Your task to perform on an android device: open app "Roku - Official Remote Control" (install if not already installed) and enter user name: "autumnal@gmail.com" and password: "stuffing" Image 0: 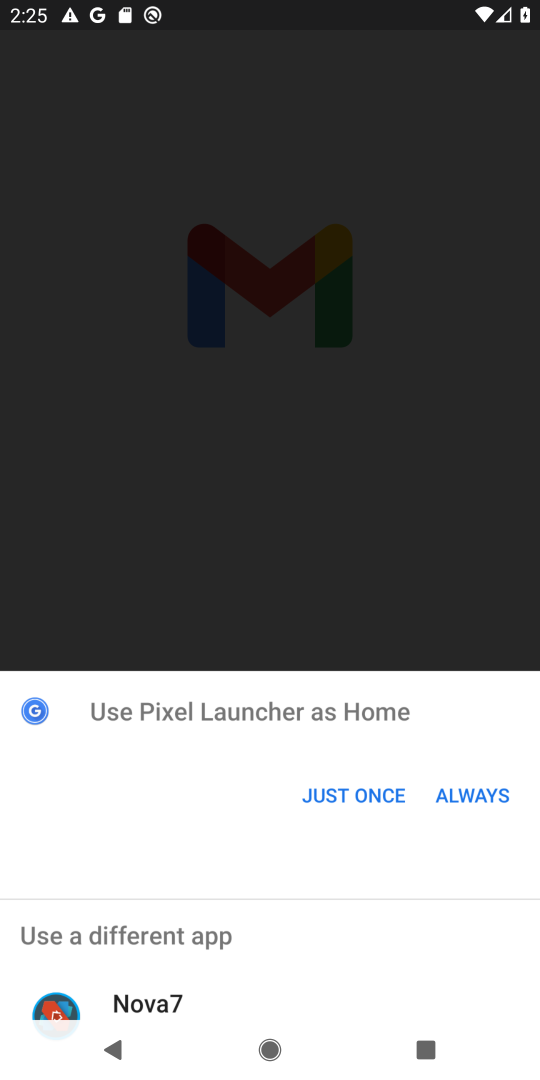
Step 0: press home button
Your task to perform on an android device: open app "Roku - Official Remote Control" (install if not already installed) and enter user name: "autumnal@gmail.com" and password: "stuffing" Image 1: 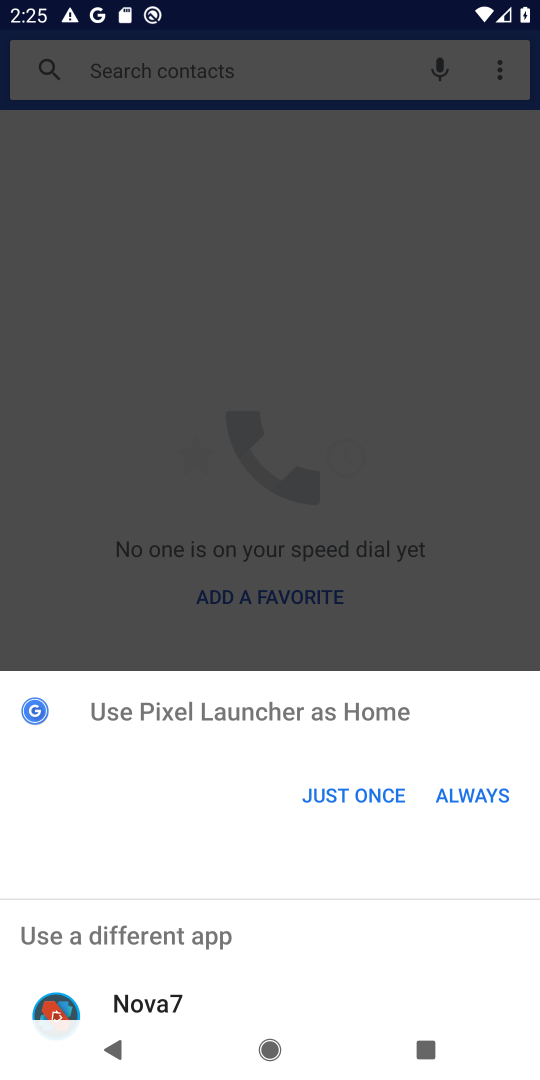
Step 1: click (360, 801)
Your task to perform on an android device: open app "Roku - Official Remote Control" (install if not already installed) and enter user name: "autumnal@gmail.com" and password: "stuffing" Image 2: 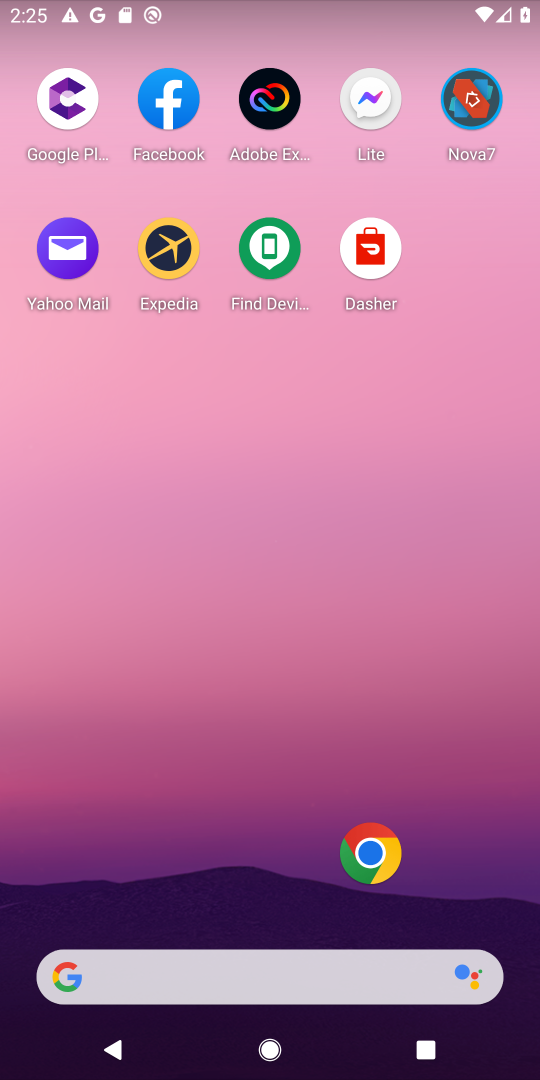
Step 2: drag from (519, 939) to (480, 186)
Your task to perform on an android device: open app "Roku - Official Remote Control" (install if not already installed) and enter user name: "autumnal@gmail.com" and password: "stuffing" Image 3: 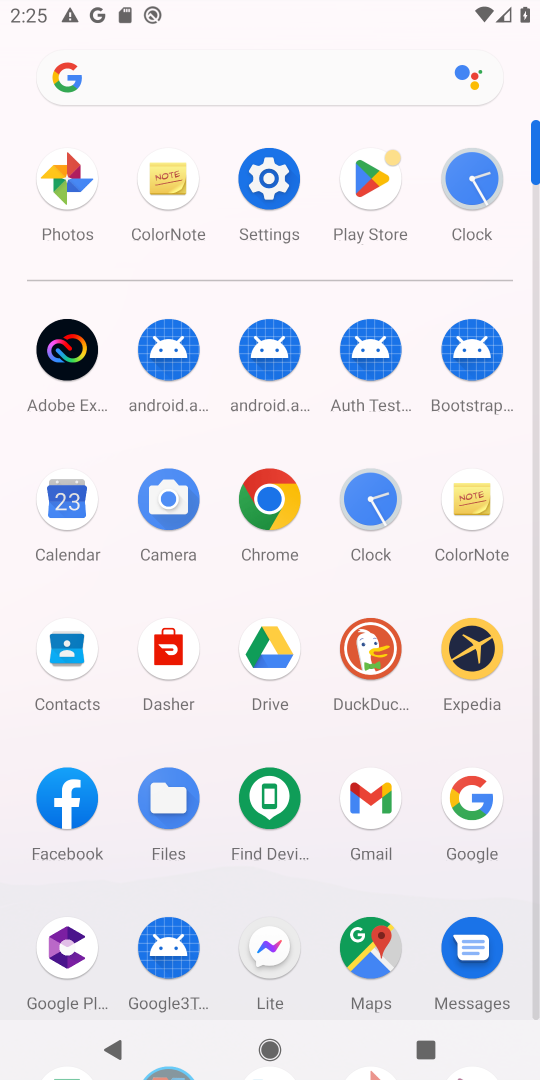
Step 3: click (538, 983)
Your task to perform on an android device: open app "Roku - Official Remote Control" (install if not already installed) and enter user name: "autumnal@gmail.com" and password: "stuffing" Image 4: 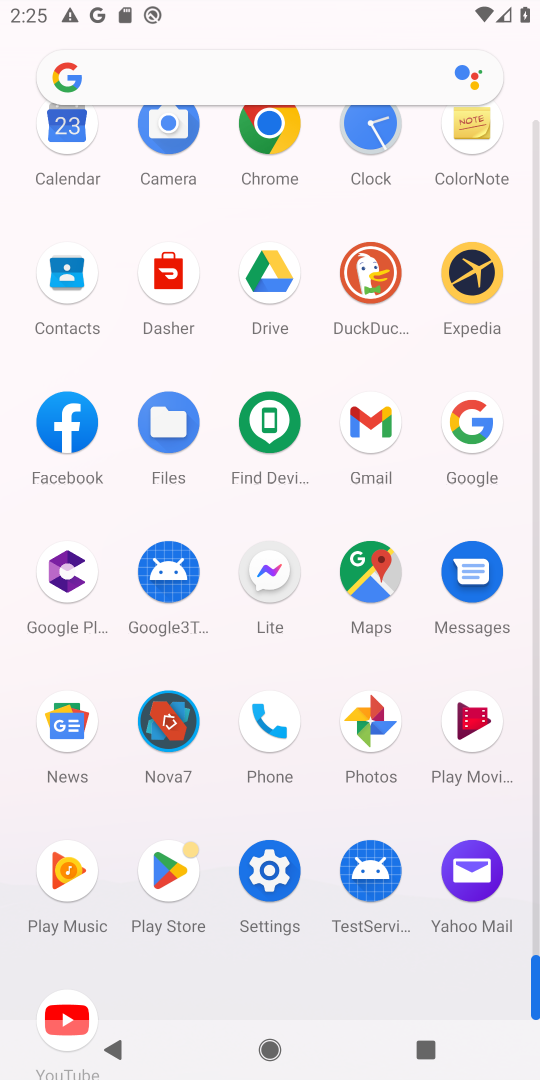
Step 4: click (170, 872)
Your task to perform on an android device: open app "Roku - Official Remote Control" (install if not already installed) and enter user name: "autumnal@gmail.com" and password: "stuffing" Image 5: 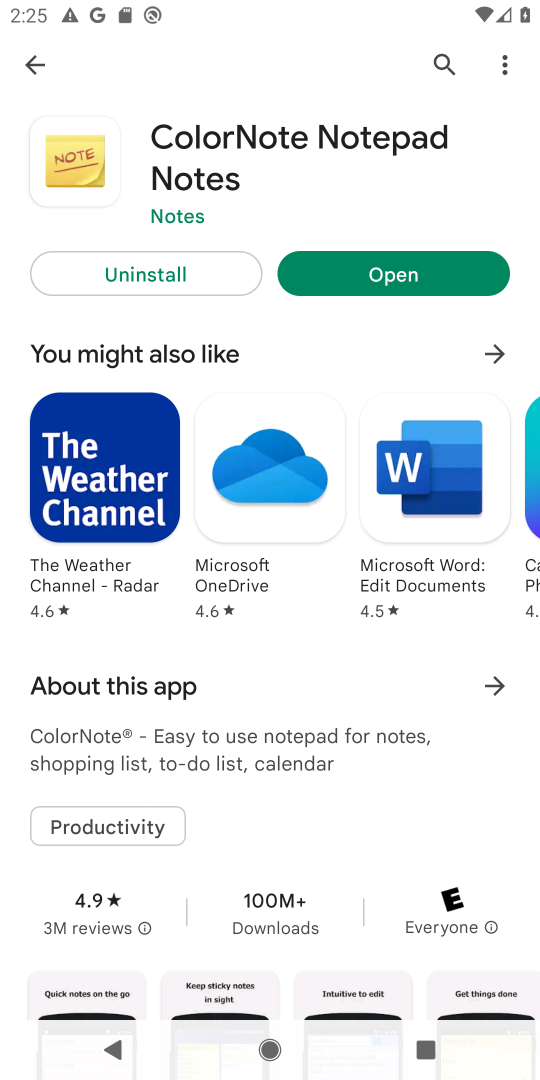
Step 5: click (442, 61)
Your task to perform on an android device: open app "Roku - Official Remote Control" (install if not already installed) and enter user name: "autumnal@gmail.com" and password: "stuffing" Image 6: 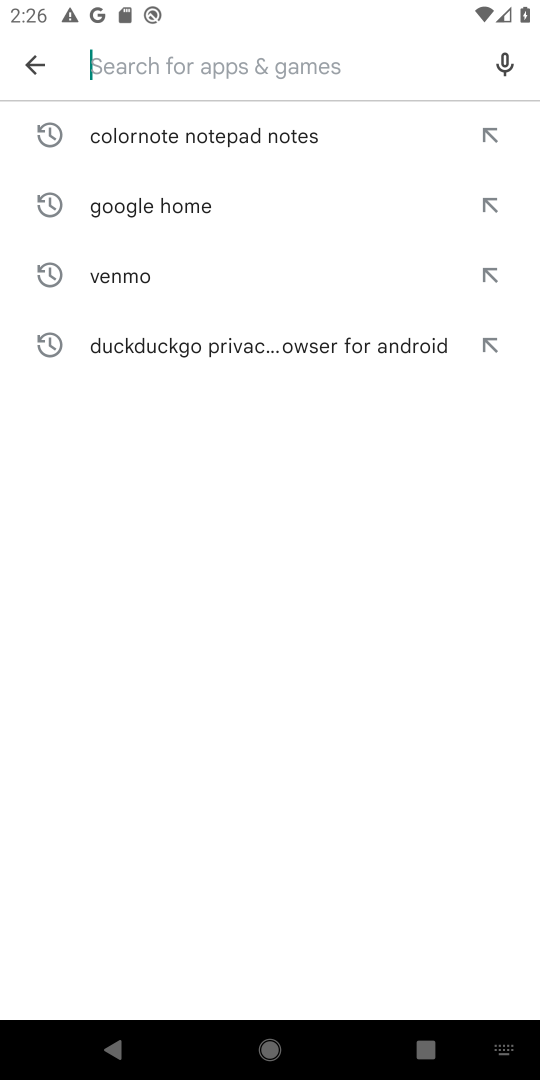
Step 6: type "Roku - Official Remote Control"
Your task to perform on an android device: open app "Roku - Official Remote Control" (install if not already installed) and enter user name: "autumnal@gmail.com" and password: "stuffing" Image 7: 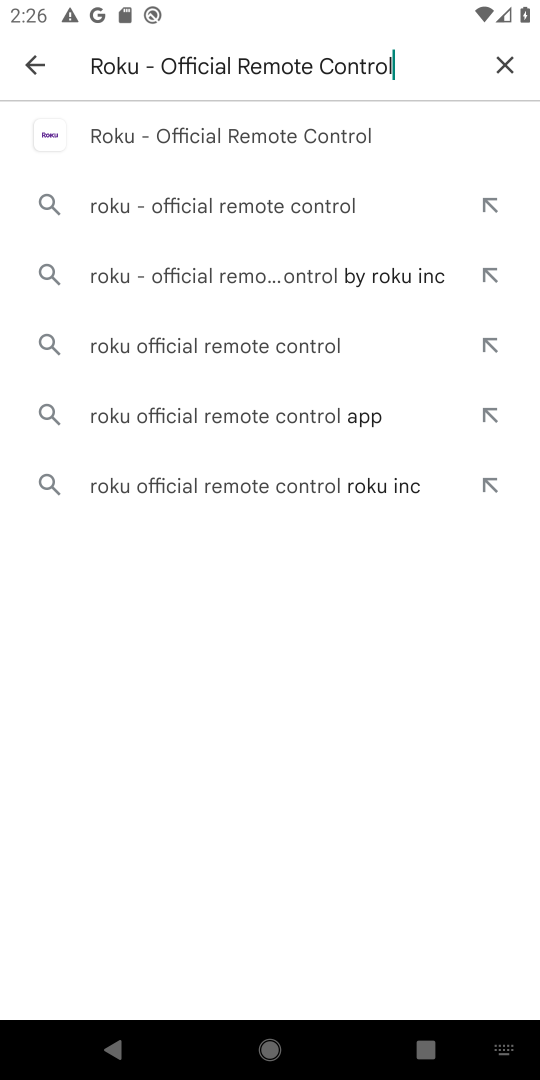
Step 7: click (186, 127)
Your task to perform on an android device: open app "Roku - Official Remote Control" (install if not already installed) and enter user name: "autumnal@gmail.com" and password: "stuffing" Image 8: 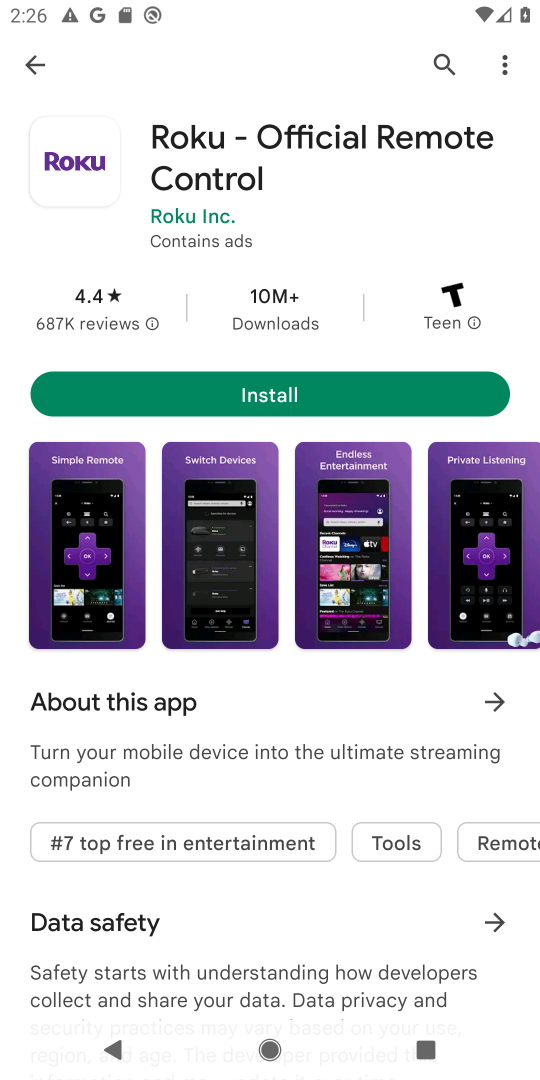
Step 8: click (276, 400)
Your task to perform on an android device: open app "Roku - Official Remote Control" (install if not already installed) and enter user name: "autumnal@gmail.com" and password: "stuffing" Image 9: 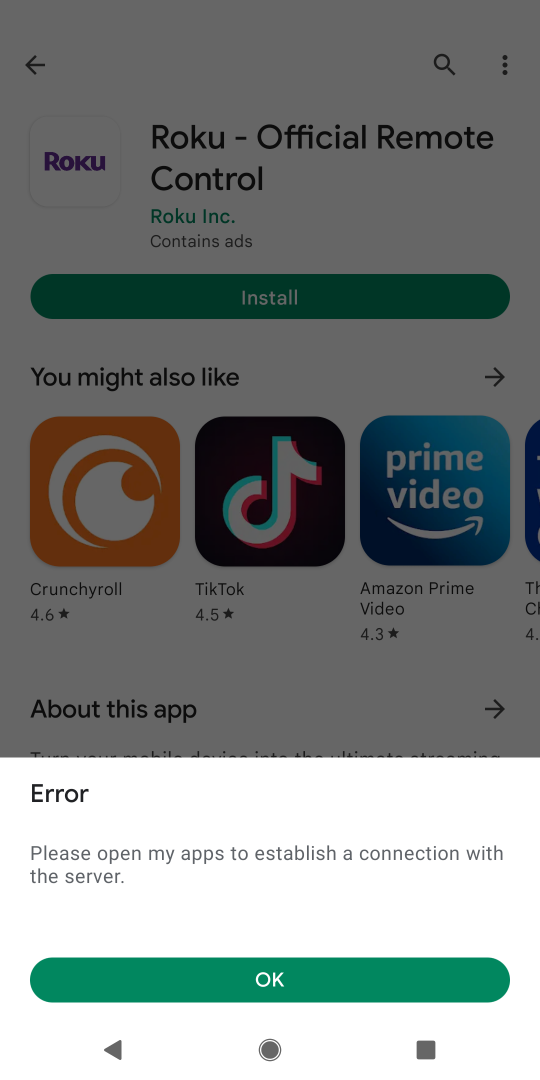
Step 9: click (277, 976)
Your task to perform on an android device: open app "Roku - Official Remote Control" (install if not already installed) and enter user name: "autumnal@gmail.com" and password: "stuffing" Image 10: 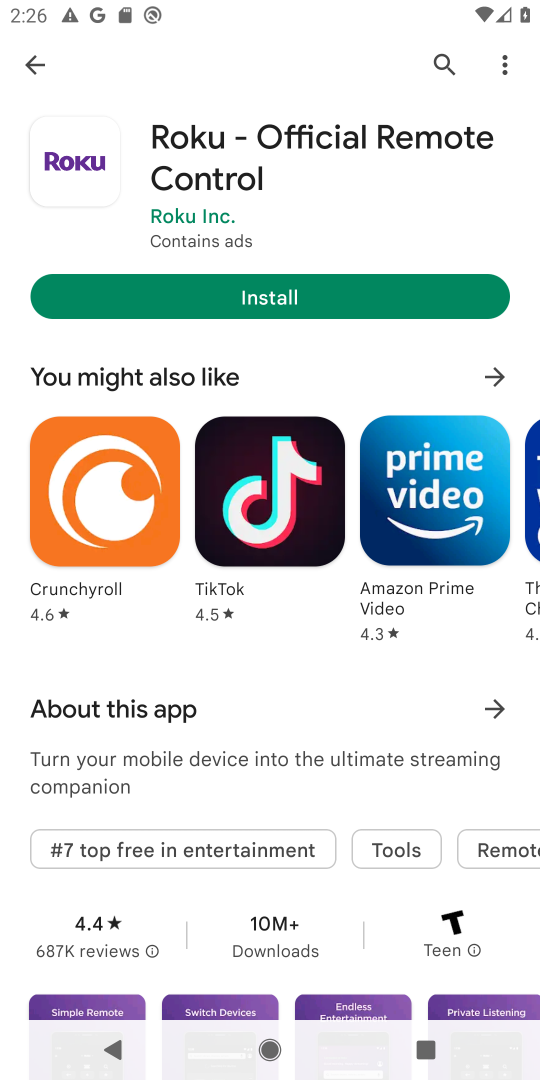
Step 10: click (272, 293)
Your task to perform on an android device: open app "Roku - Official Remote Control" (install if not already installed) and enter user name: "autumnal@gmail.com" and password: "stuffing" Image 11: 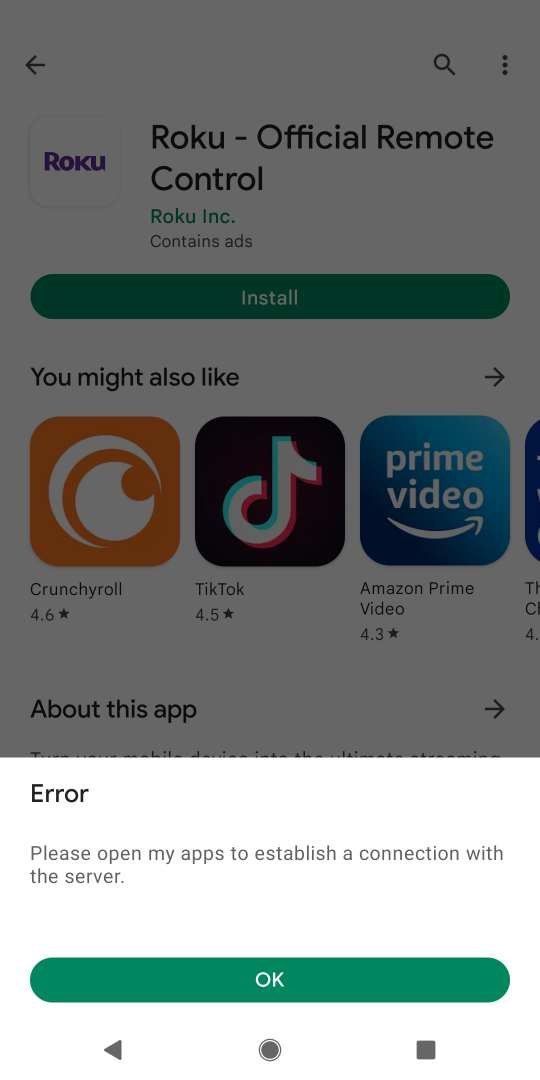
Step 11: click (262, 979)
Your task to perform on an android device: open app "Roku - Official Remote Control" (install if not already installed) and enter user name: "autumnal@gmail.com" and password: "stuffing" Image 12: 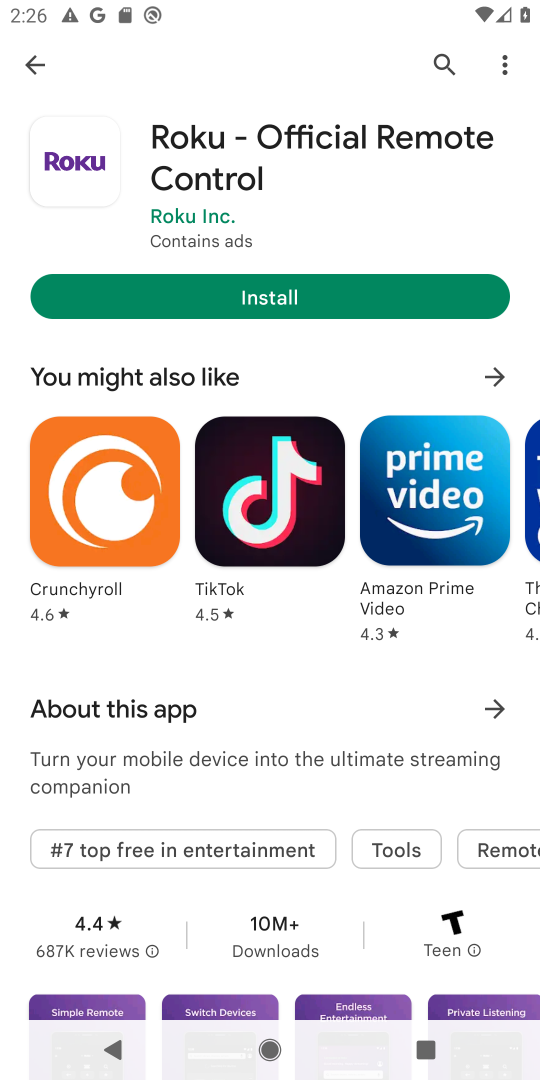
Step 12: task complete